Your task to perform on an android device: Open internet settings Image 0: 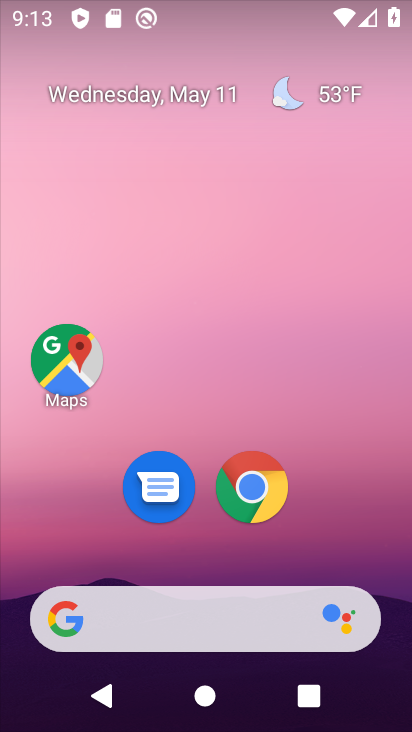
Step 0: drag from (331, 536) to (233, 78)
Your task to perform on an android device: Open internet settings Image 1: 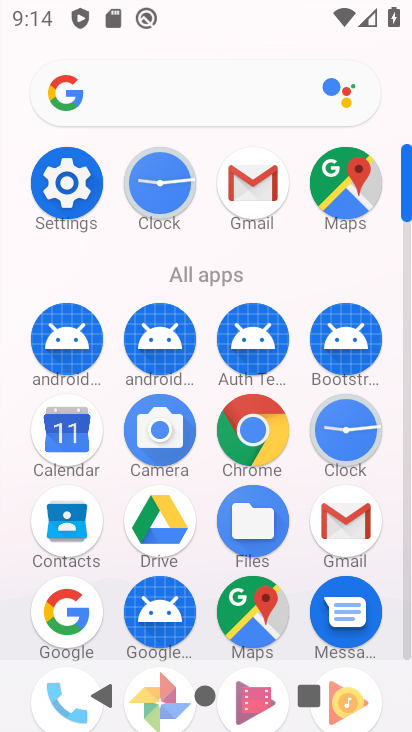
Step 1: click (66, 181)
Your task to perform on an android device: Open internet settings Image 2: 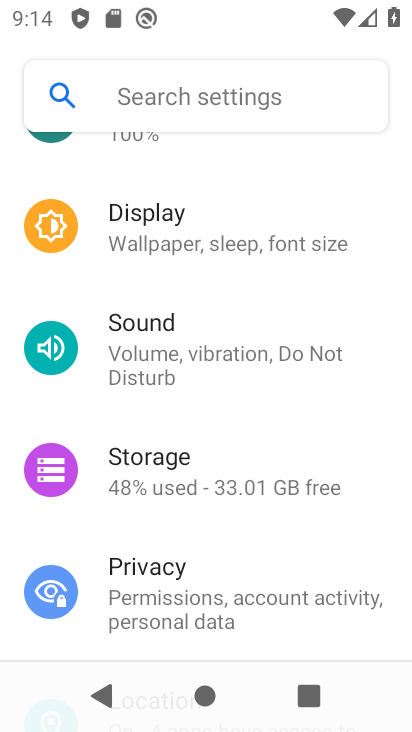
Step 2: drag from (214, 289) to (217, 374)
Your task to perform on an android device: Open internet settings Image 3: 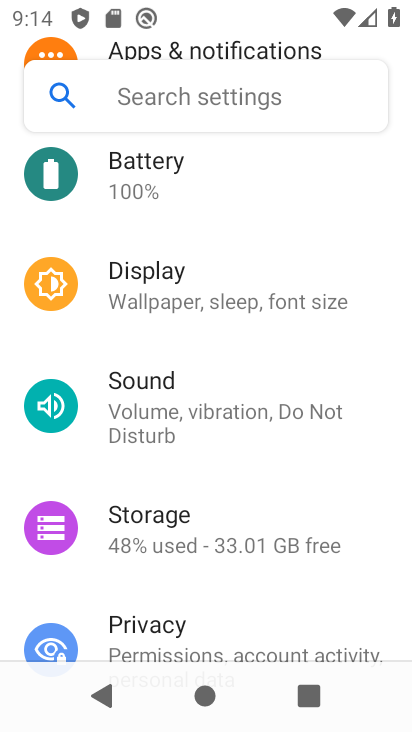
Step 3: drag from (221, 225) to (239, 340)
Your task to perform on an android device: Open internet settings Image 4: 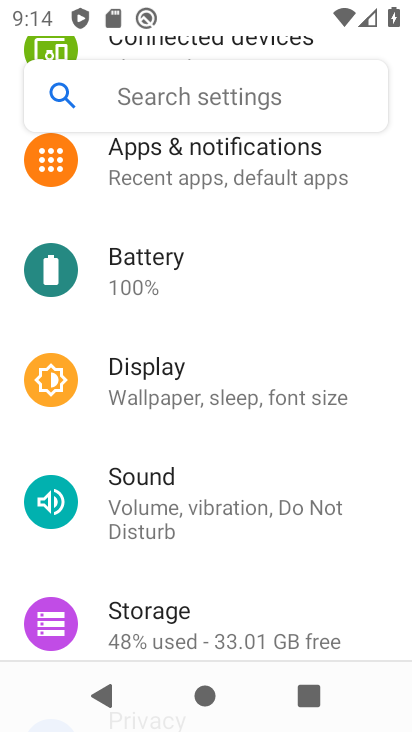
Step 4: drag from (218, 239) to (229, 371)
Your task to perform on an android device: Open internet settings Image 5: 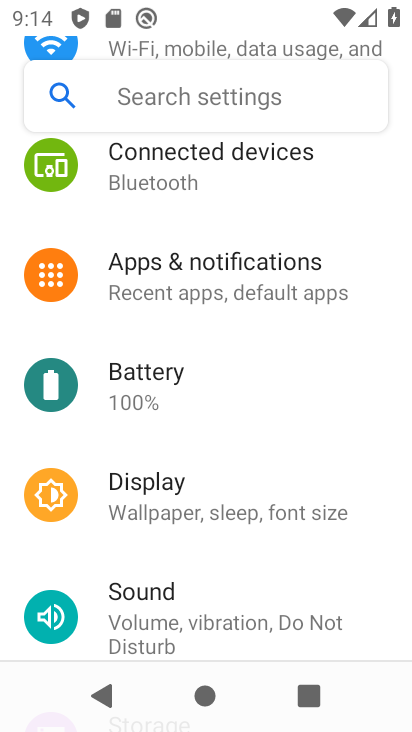
Step 5: drag from (227, 217) to (209, 363)
Your task to perform on an android device: Open internet settings Image 6: 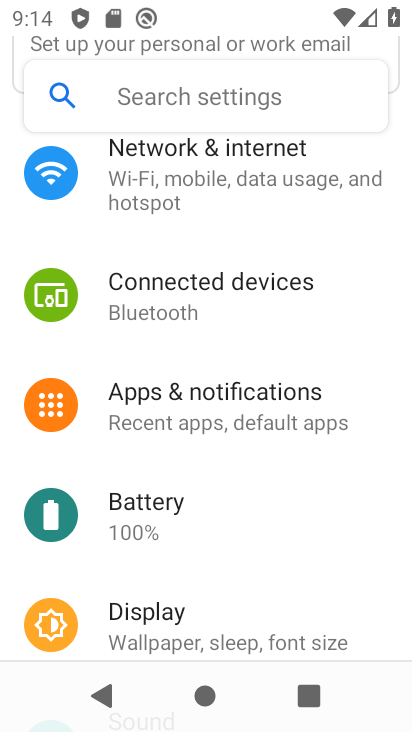
Step 6: drag from (209, 247) to (220, 348)
Your task to perform on an android device: Open internet settings Image 7: 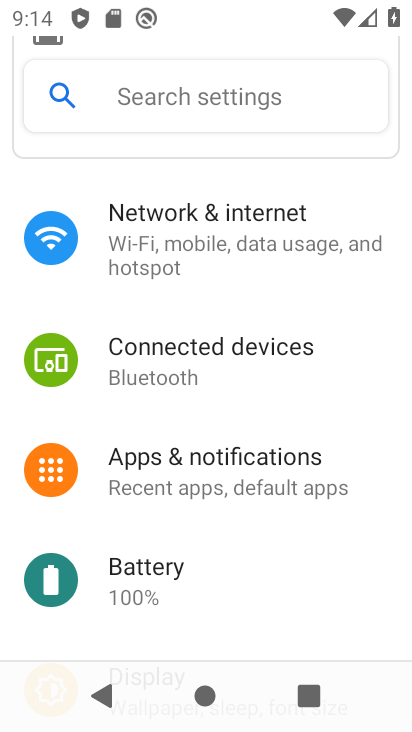
Step 7: click (212, 219)
Your task to perform on an android device: Open internet settings Image 8: 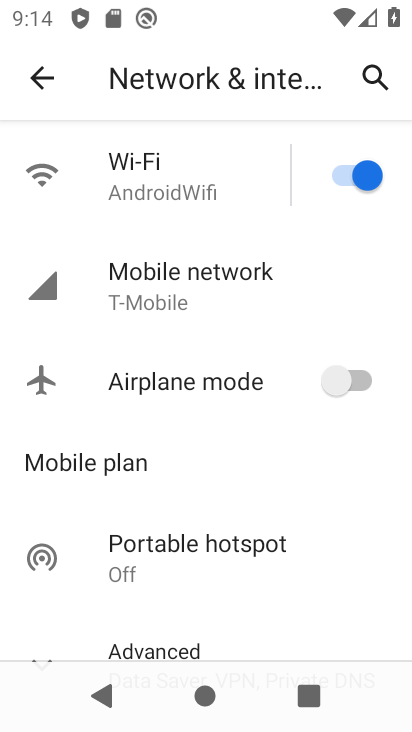
Step 8: task complete